Your task to perform on an android device: Search for seafood restaurants on Google Maps Image 0: 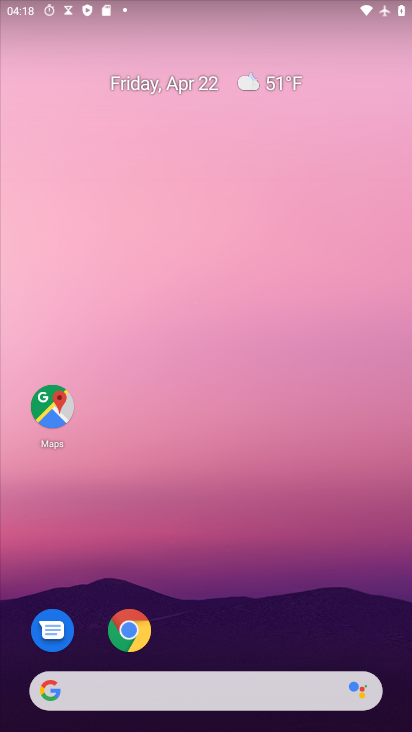
Step 0: drag from (326, 523) to (272, 93)
Your task to perform on an android device: Search for seafood restaurants on Google Maps Image 1: 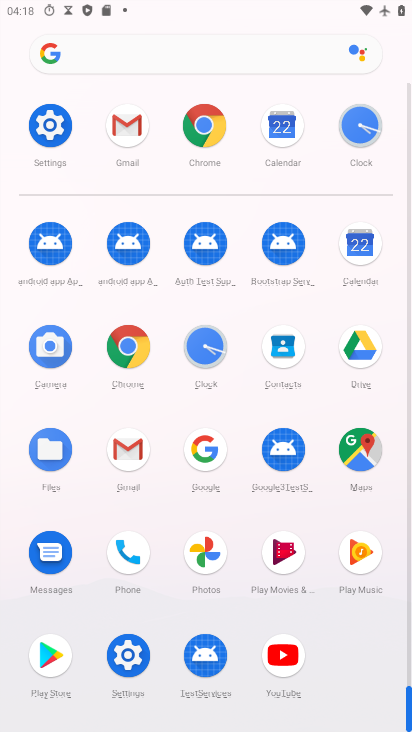
Step 1: drag from (17, 496) to (19, 216)
Your task to perform on an android device: Search for seafood restaurants on Google Maps Image 2: 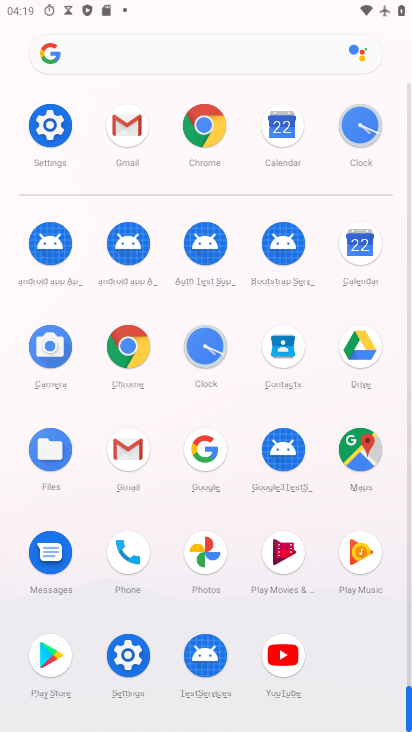
Step 2: click (358, 444)
Your task to perform on an android device: Search for seafood restaurants on Google Maps Image 3: 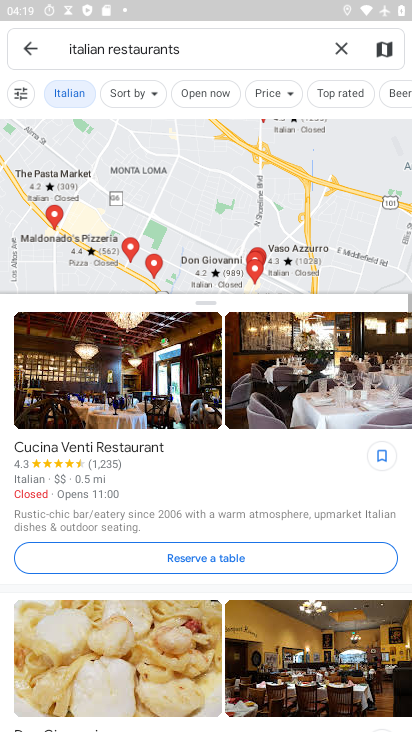
Step 3: click (344, 45)
Your task to perform on an android device: Search for seafood restaurants on Google Maps Image 4: 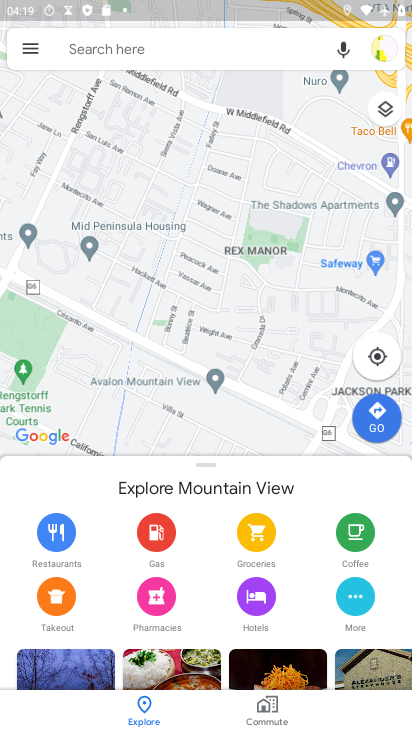
Step 4: click (194, 54)
Your task to perform on an android device: Search for seafood restaurants on Google Maps Image 5: 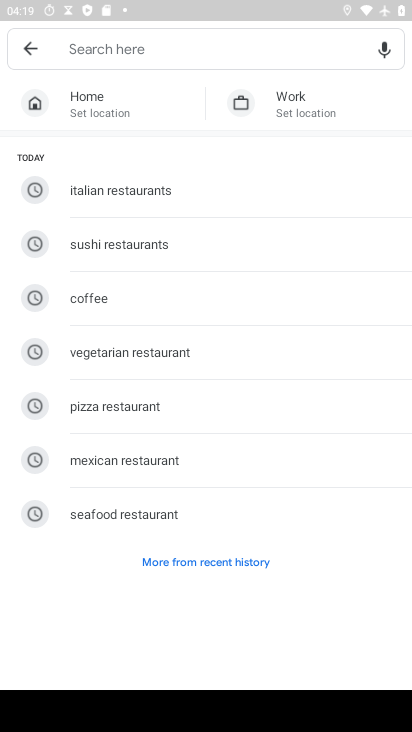
Step 5: click (126, 513)
Your task to perform on an android device: Search for seafood restaurants on Google Maps Image 6: 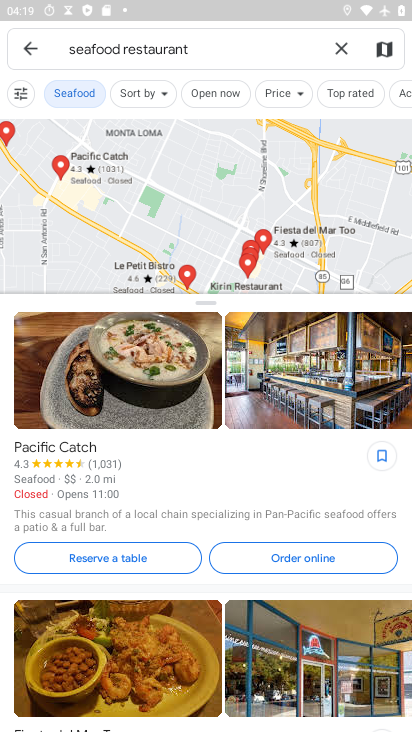
Step 6: task complete